Your task to perform on an android device: turn vacation reply on in the gmail app Image 0: 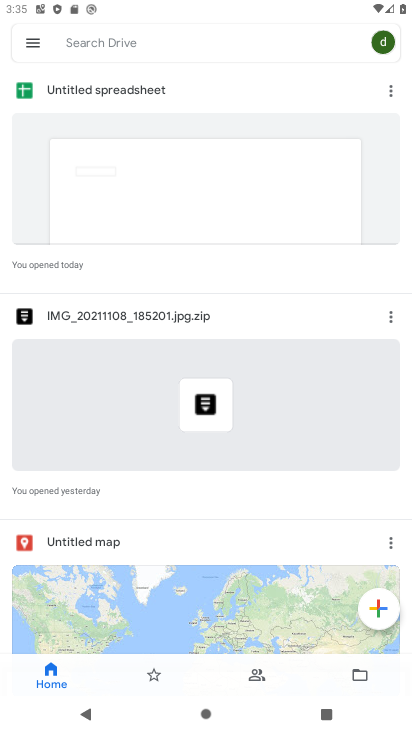
Step 0: press home button
Your task to perform on an android device: turn vacation reply on in the gmail app Image 1: 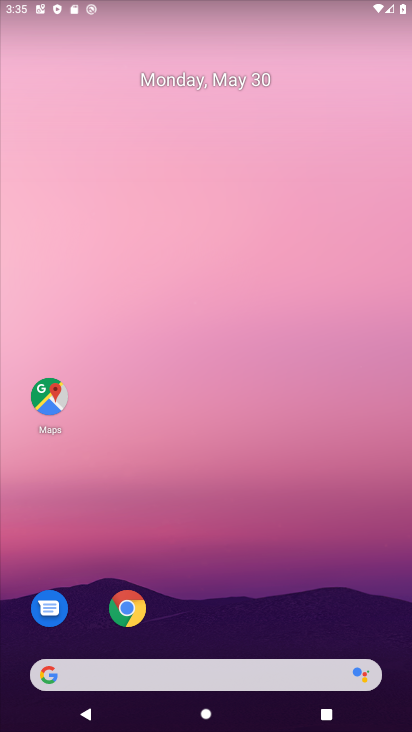
Step 1: drag from (228, 603) to (219, 211)
Your task to perform on an android device: turn vacation reply on in the gmail app Image 2: 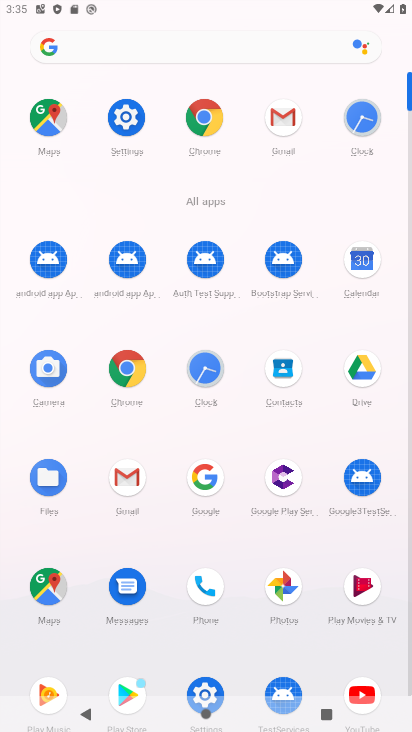
Step 2: click (285, 110)
Your task to perform on an android device: turn vacation reply on in the gmail app Image 3: 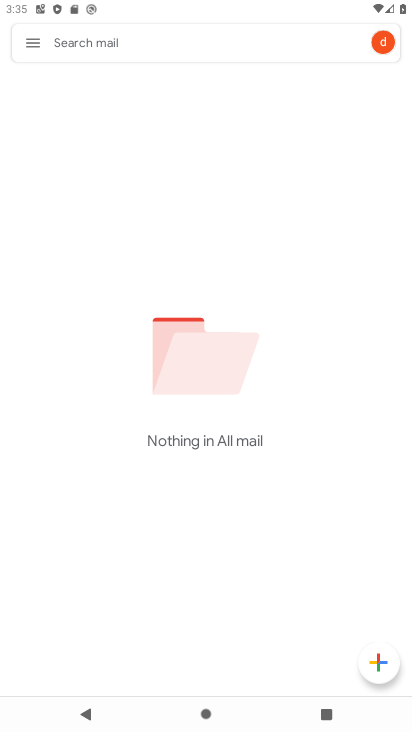
Step 3: click (27, 38)
Your task to perform on an android device: turn vacation reply on in the gmail app Image 4: 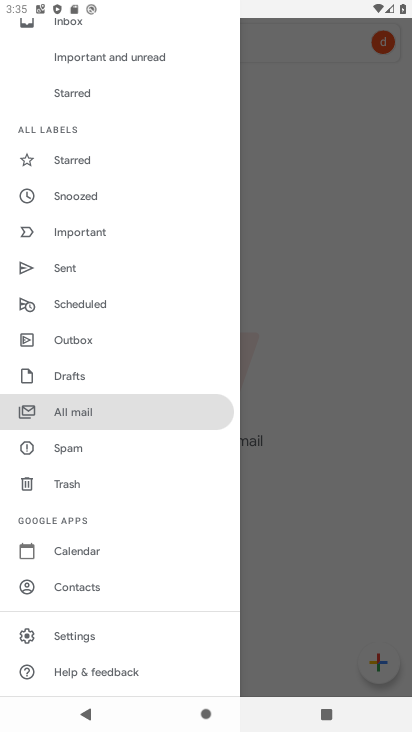
Step 4: click (91, 624)
Your task to perform on an android device: turn vacation reply on in the gmail app Image 5: 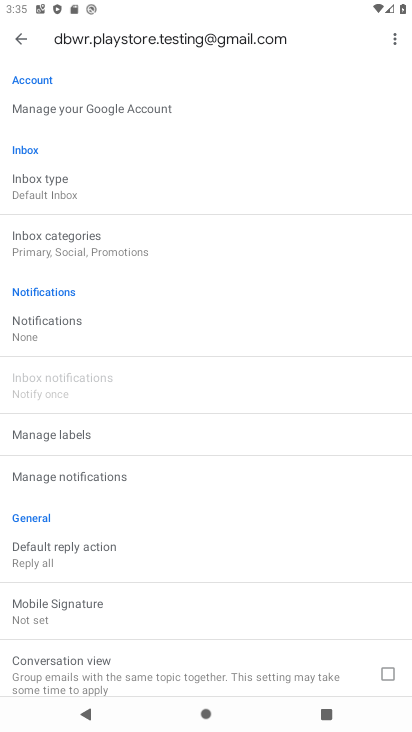
Step 5: drag from (135, 562) to (163, 441)
Your task to perform on an android device: turn vacation reply on in the gmail app Image 6: 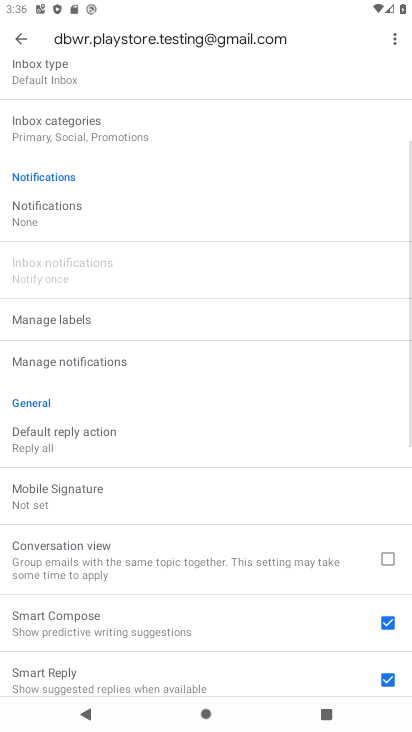
Step 6: drag from (164, 551) to (206, 296)
Your task to perform on an android device: turn vacation reply on in the gmail app Image 7: 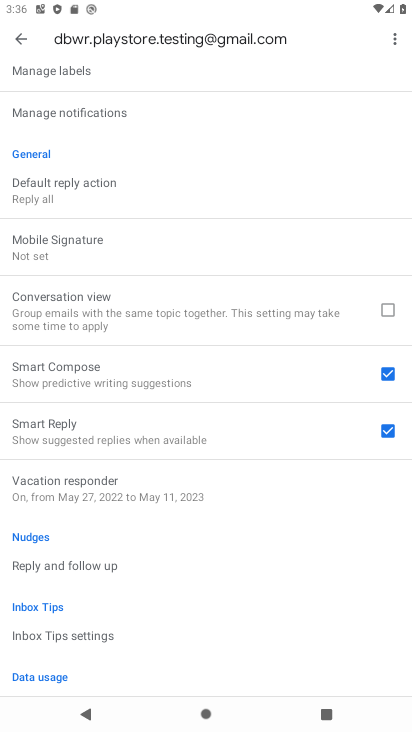
Step 7: click (121, 489)
Your task to perform on an android device: turn vacation reply on in the gmail app Image 8: 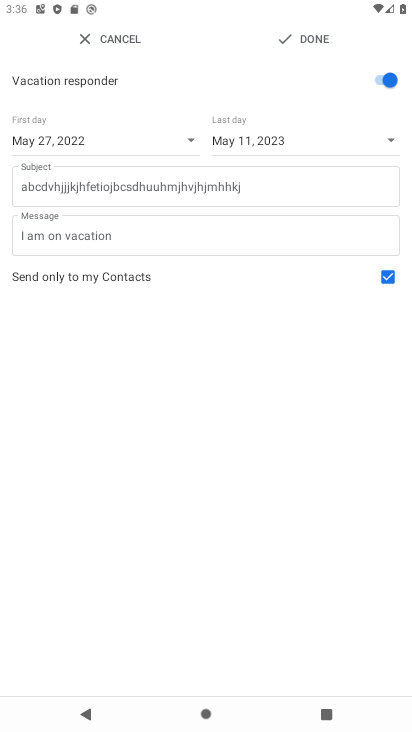
Step 8: task complete